Your task to perform on an android device: Go to Google maps Image 0: 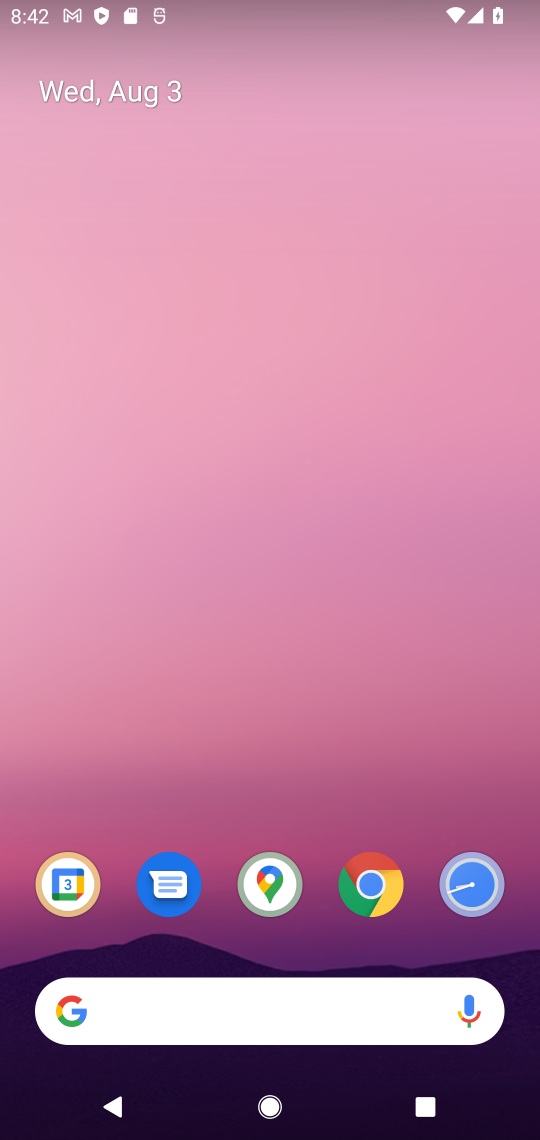
Step 0: drag from (200, 719) to (311, 18)
Your task to perform on an android device: Go to Google maps Image 1: 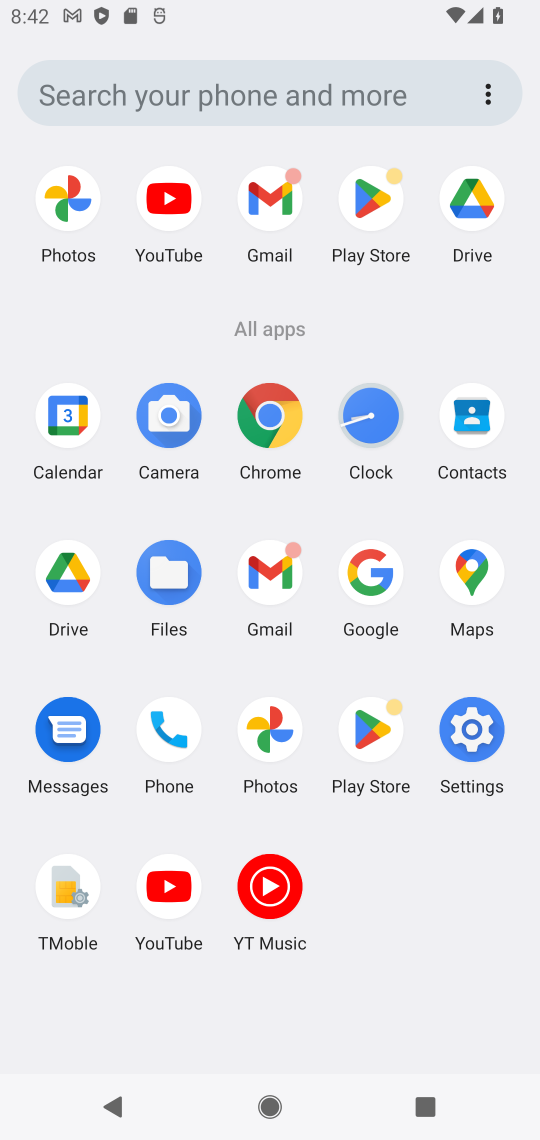
Step 1: click (475, 561)
Your task to perform on an android device: Go to Google maps Image 2: 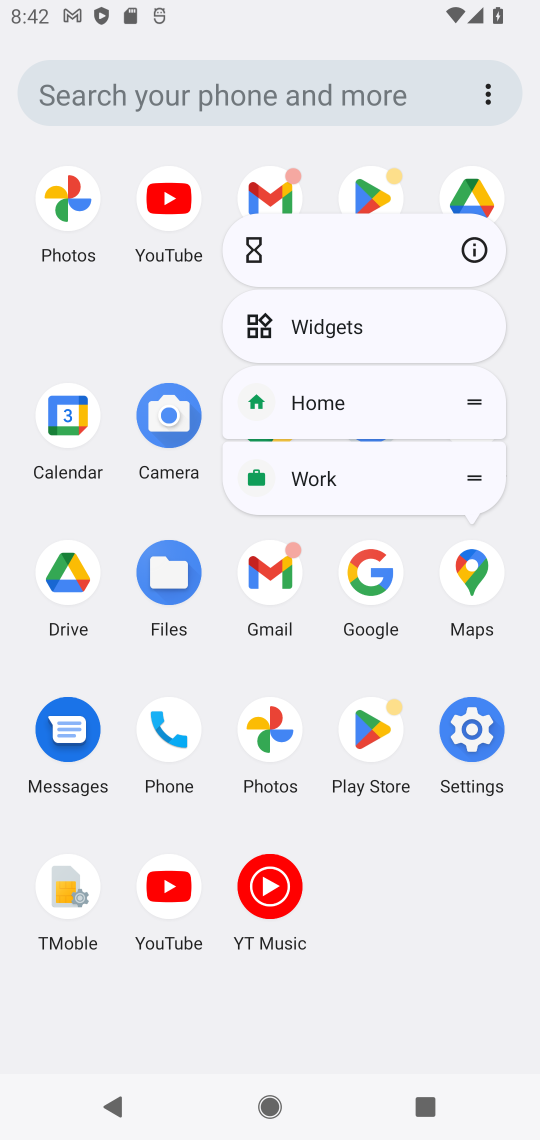
Step 2: click (460, 581)
Your task to perform on an android device: Go to Google maps Image 3: 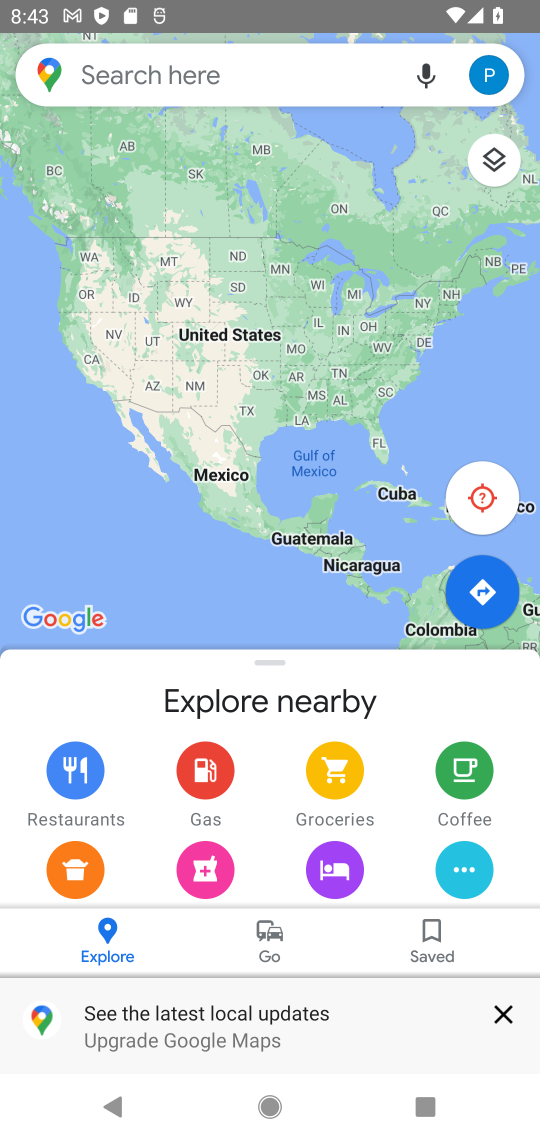
Step 3: task complete